Your task to perform on an android device: open app "Google Maps" (install if not already installed) Image 0: 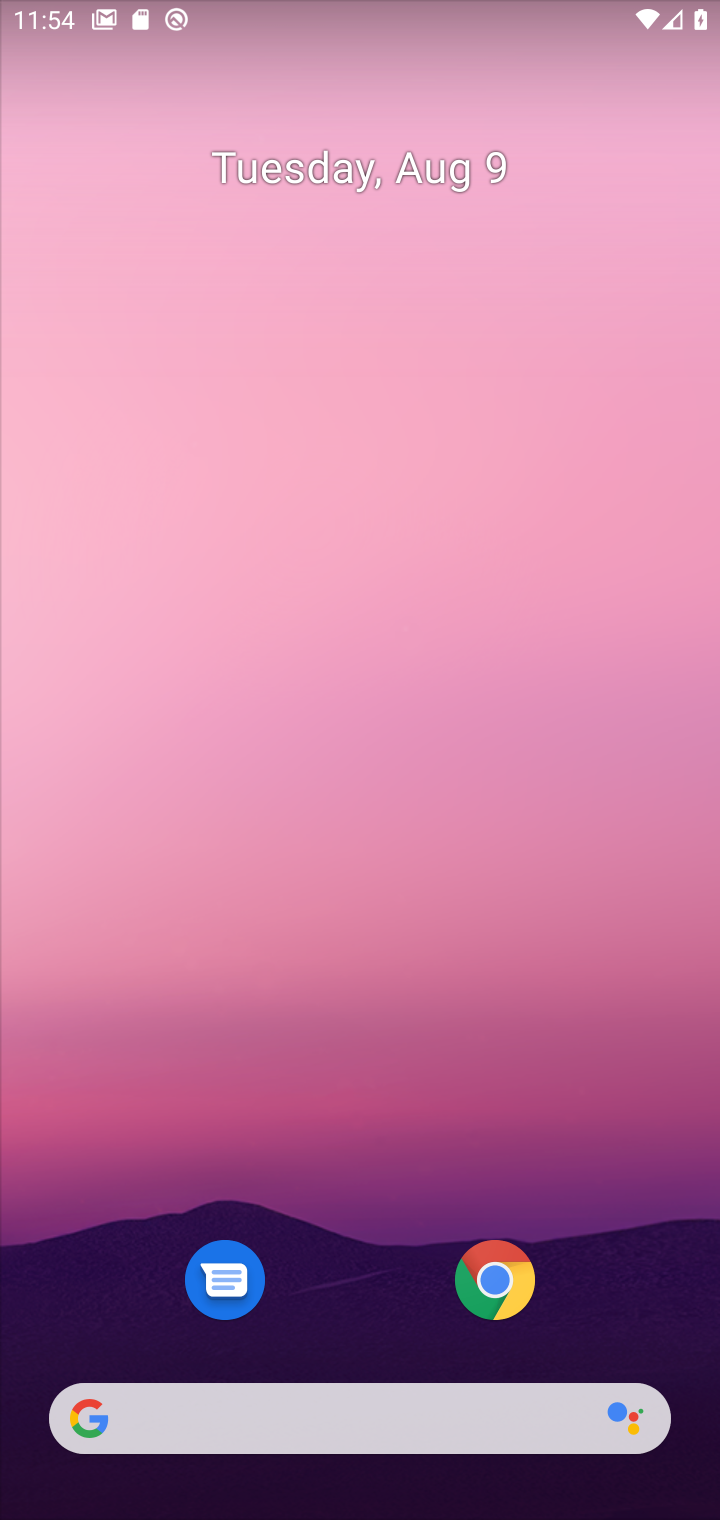
Step 0: drag from (303, 1204) to (474, 210)
Your task to perform on an android device: open app "Google Maps" (install if not already installed) Image 1: 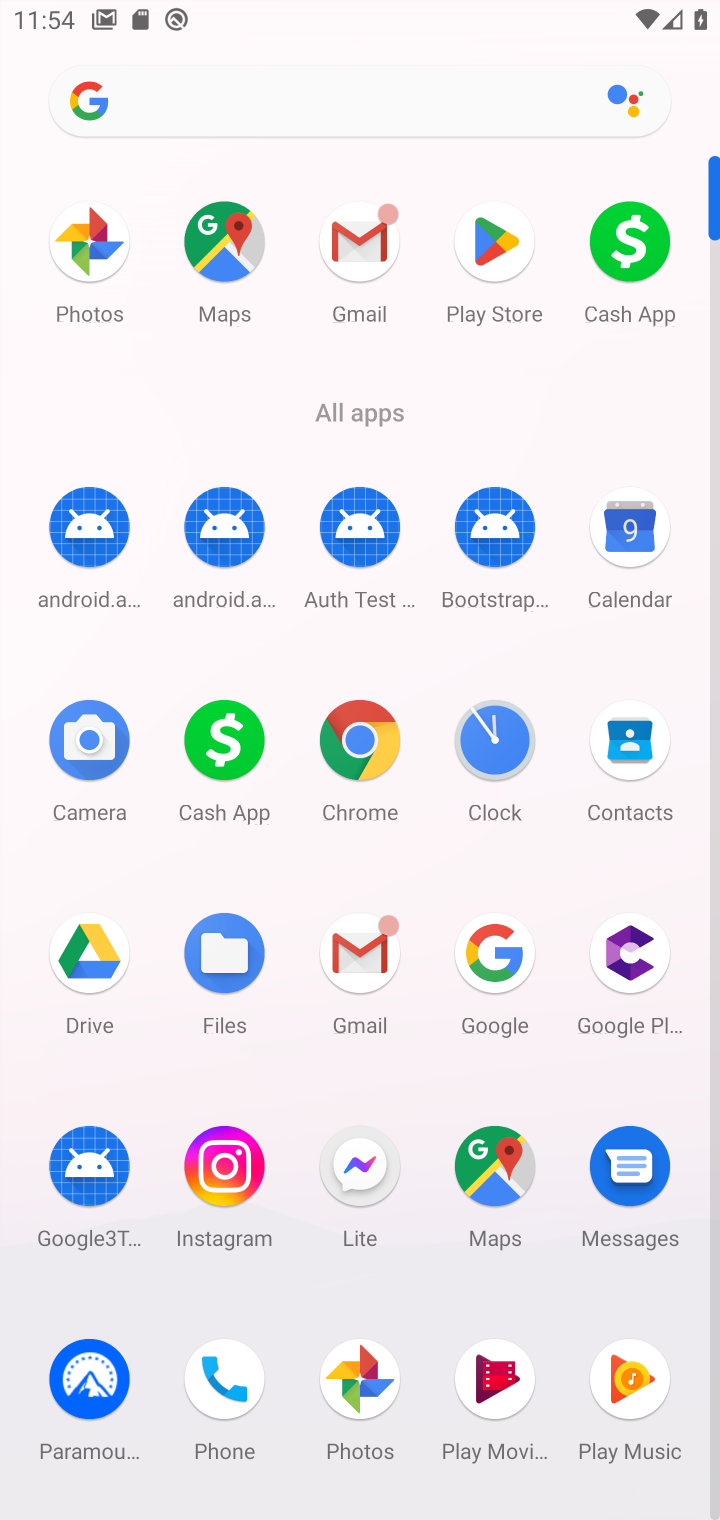
Step 1: click (108, 230)
Your task to perform on an android device: open app "Google Maps" (install if not already installed) Image 2: 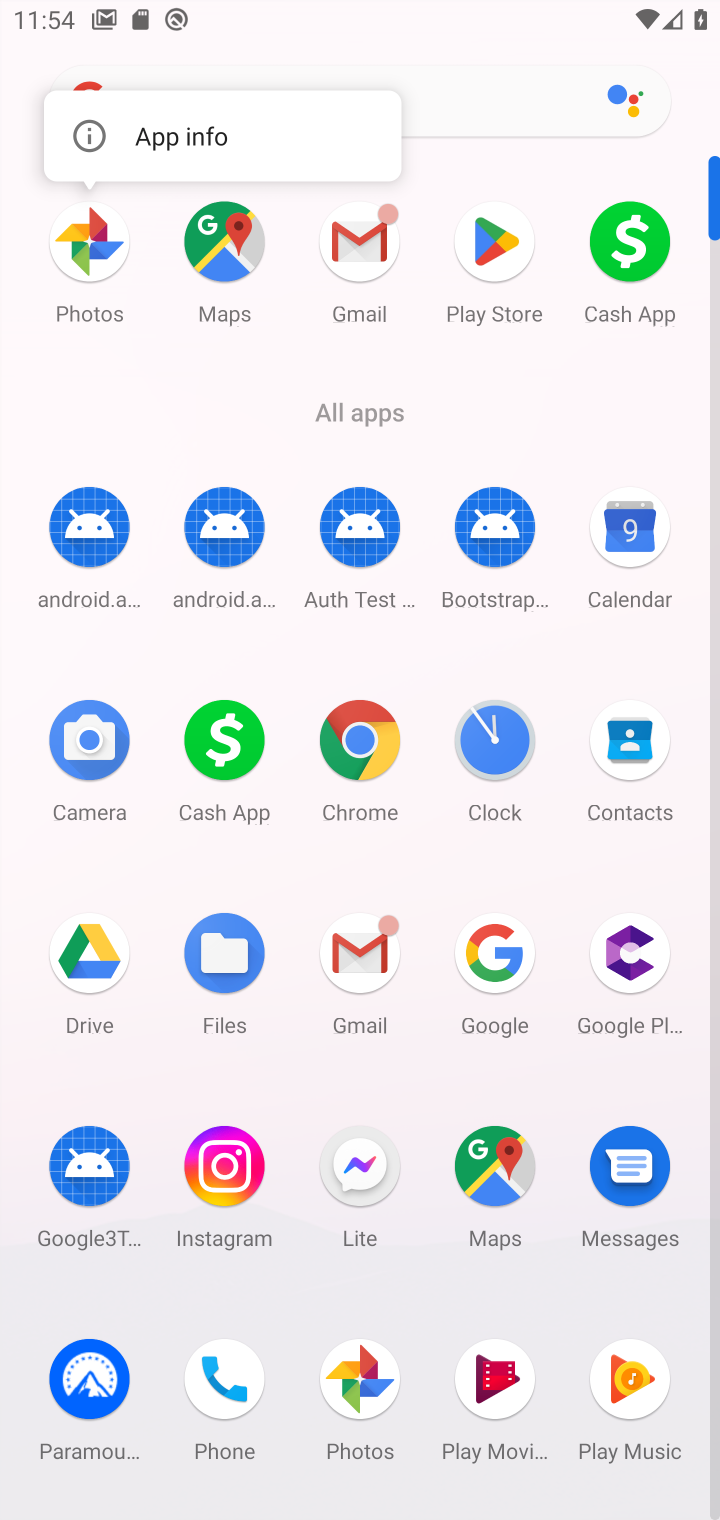
Step 2: click (224, 256)
Your task to perform on an android device: open app "Google Maps" (install if not already installed) Image 3: 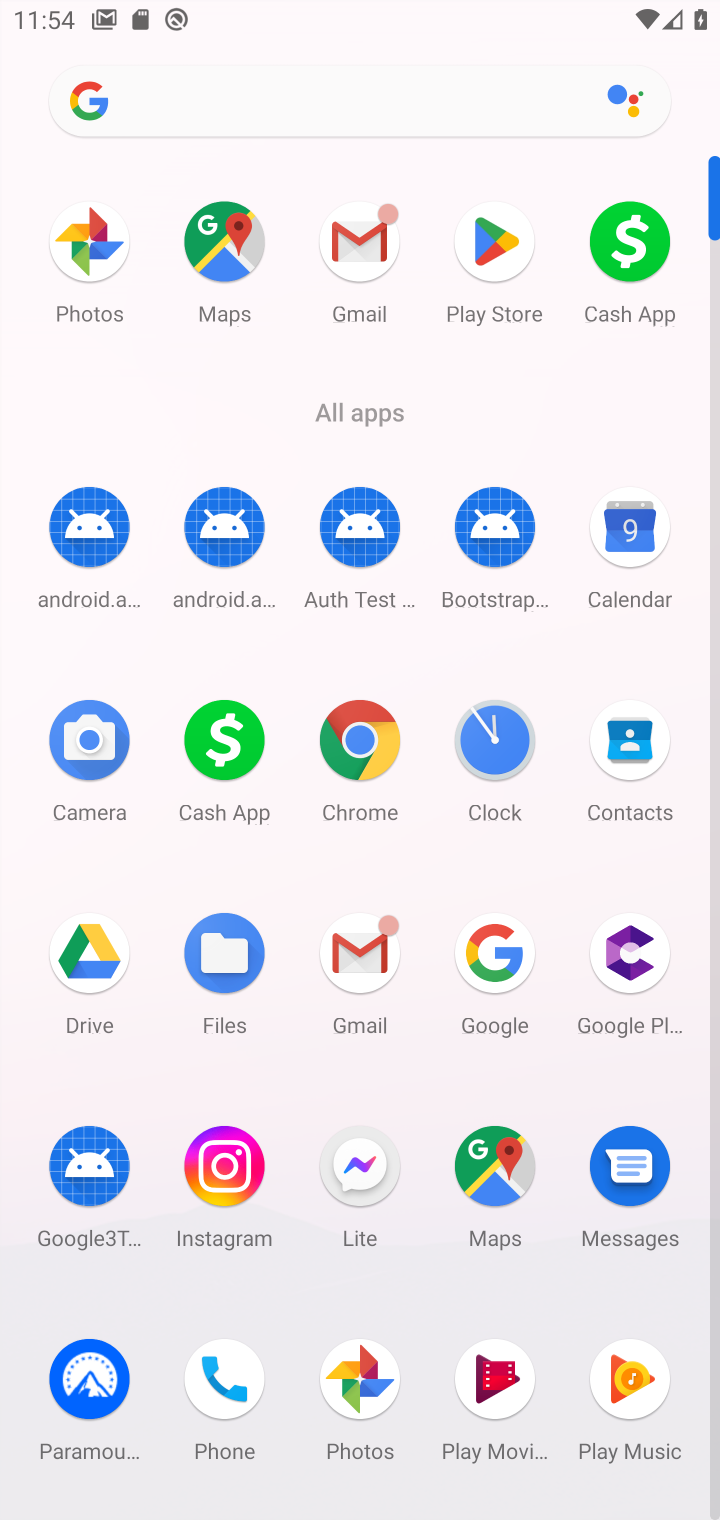
Step 3: click (233, 231)
Your task to perform on an android device: open app "Google Maps" (install if not already installed) Image 4: 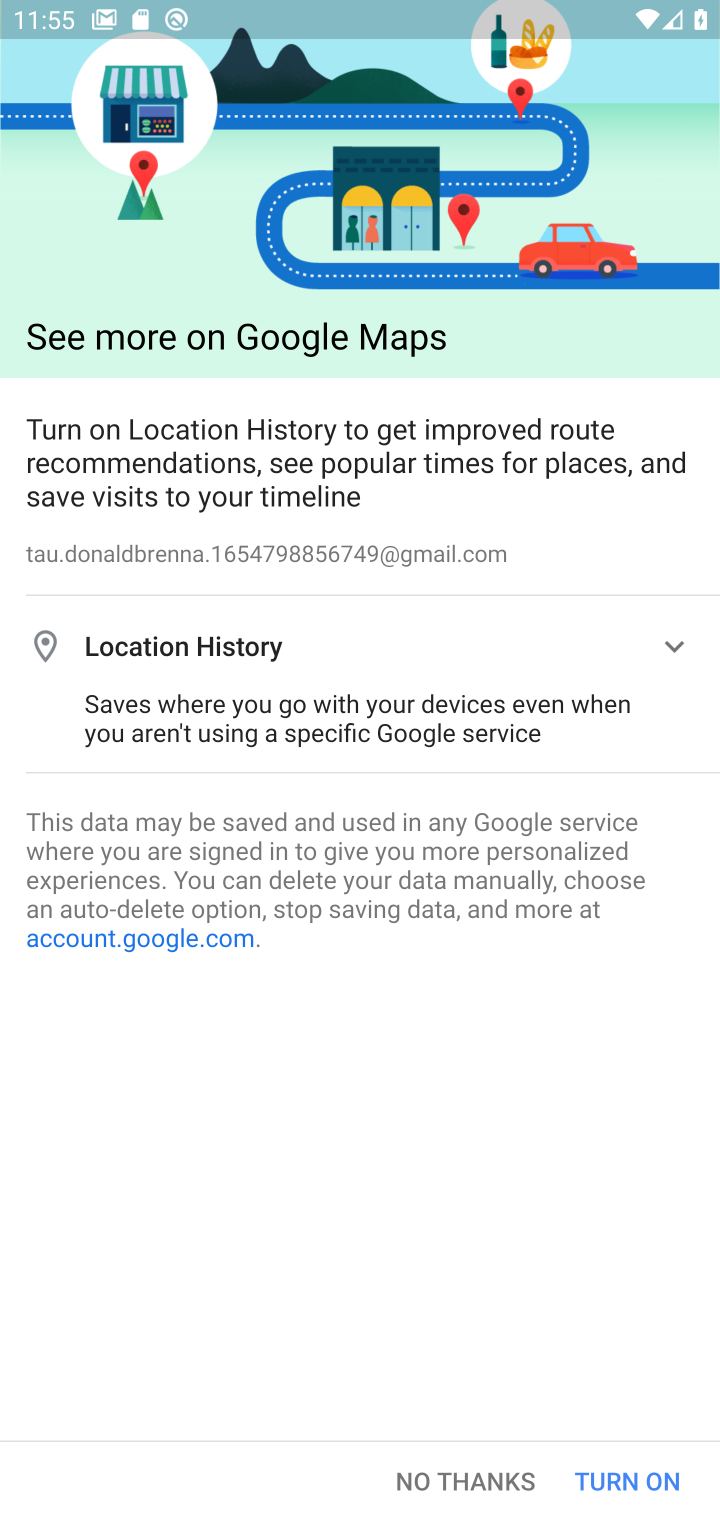
Step 4: task complete